Your task to perform on an android device: What's on my calendar tomorrow? Image 0: 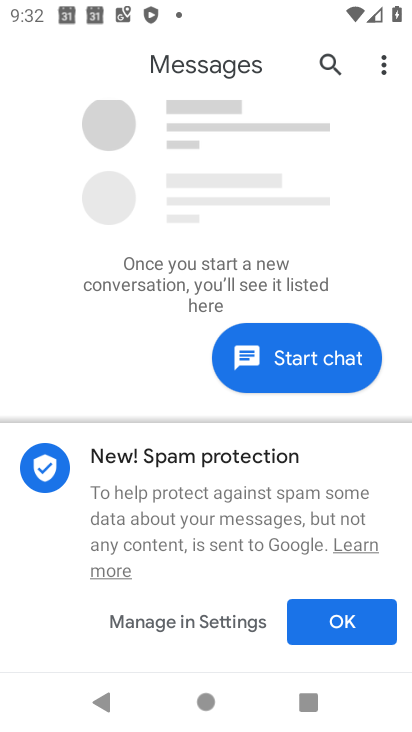
Step 0: press home button
Your task to perform on an android device: What's on my calendar tomorrow? Image 1: 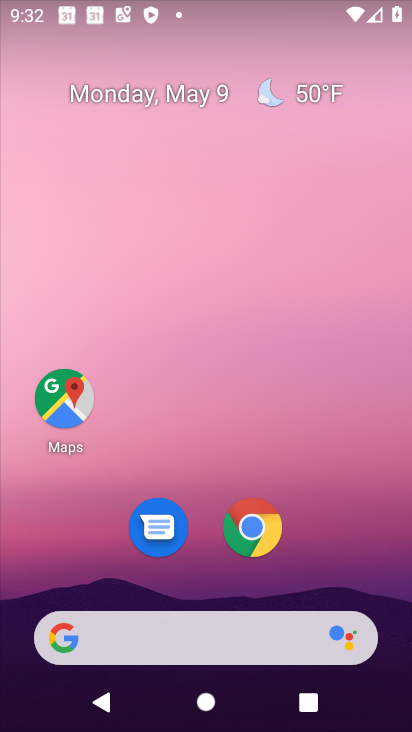
Step 1: drag from (161, 606) to (174, 228)
Your task to perform on an android device: What's on my calendar tomorrow? Image 2: 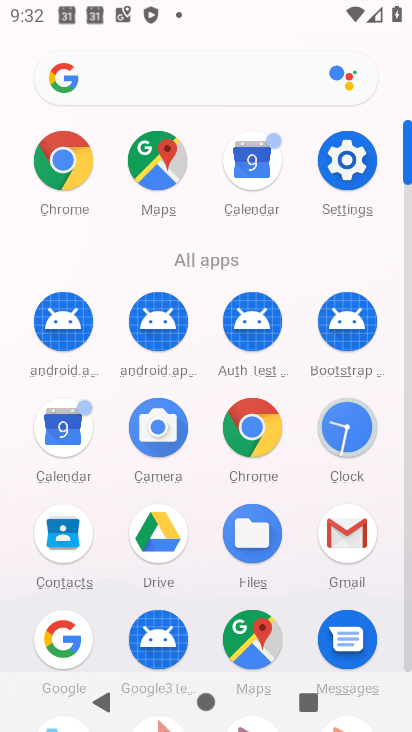
Step 2: click (71, 419)
Your task to perform on an android device: What's on my calendar tomorrow? Image 3: 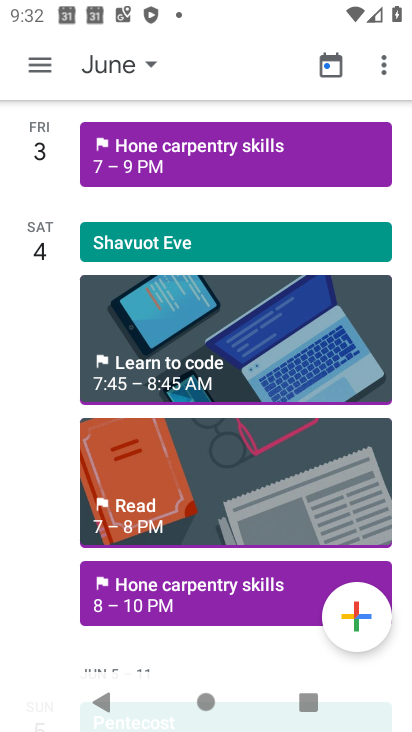
Step 3: click (114, 66)
Your task to perform on an android device: What's on my calendar tomorrow? Image 4: 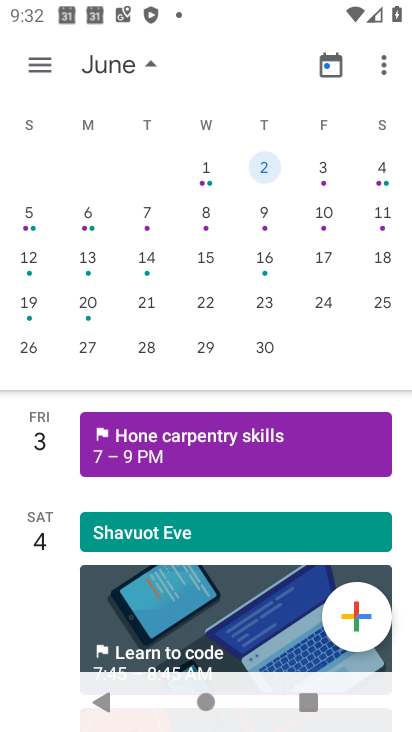
Step 4: drag from (36, 196) to (312, 211)
Your task to perform on an android device: What's on my calendar tomorrow? Image 5: 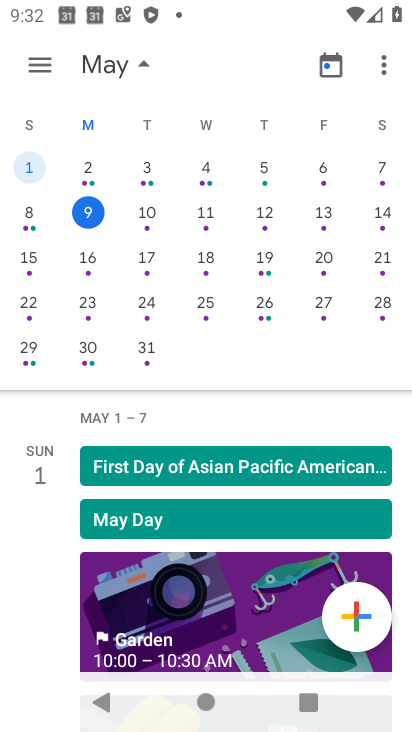
Step 5: click (150, 213)
Your task to perform on an android device: What's on my calendar tomorrow? Image 6: 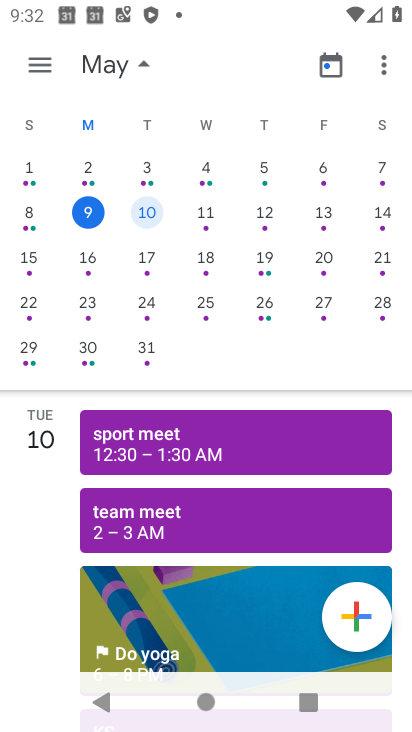
Step 6: task complete